Your task to perform on an android device: See recent photos Image 0: 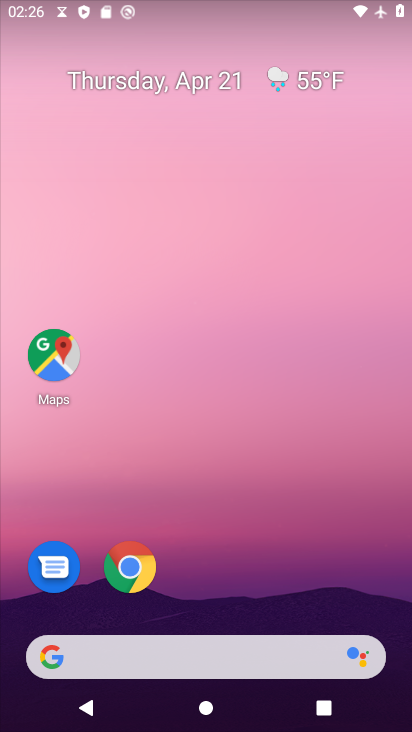
Step 0: drag from (205, 628) to (319, 130)
Your task to perform on an android device: See recent photos Image 1: 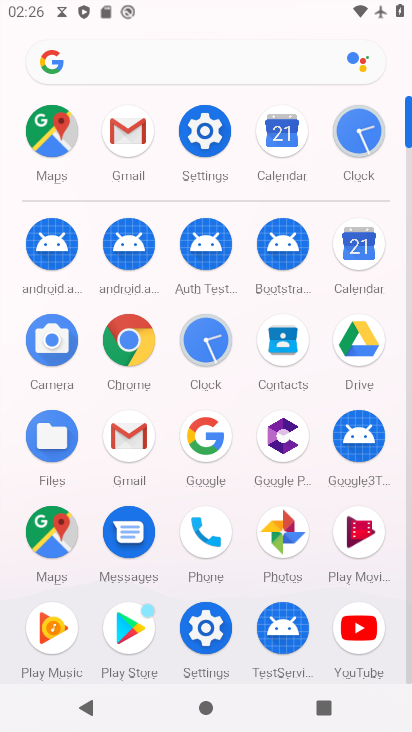
Step 1: click (282, 524)
Your task to perform on an android device: See recent photos Image 2: 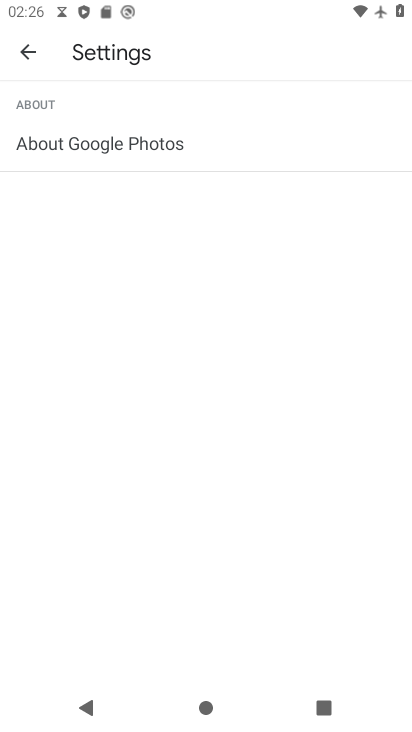
Step 2: click (26, 47)
Your task to perform on an android device: See recent photos Image 3: 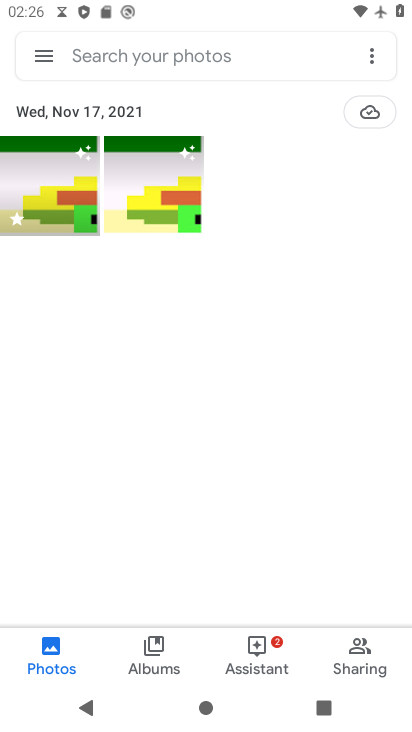
Step 3: click (149, 656)
Your task to perform on an android device: See recent photos Image 4: 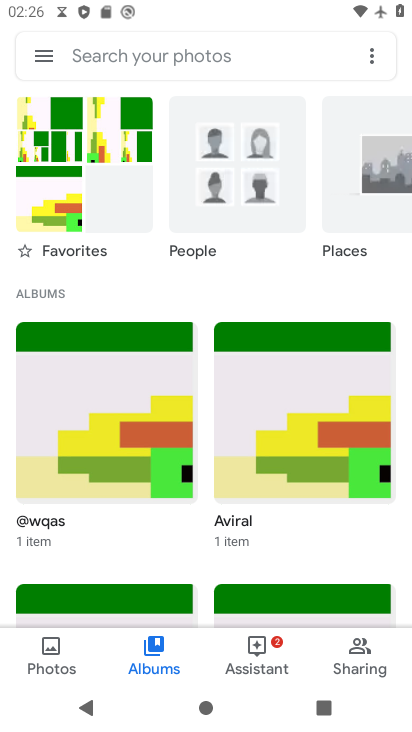
Step 4: task complete